Your task to perform on an android device: manage bookmarks in the chrome app Image 0: 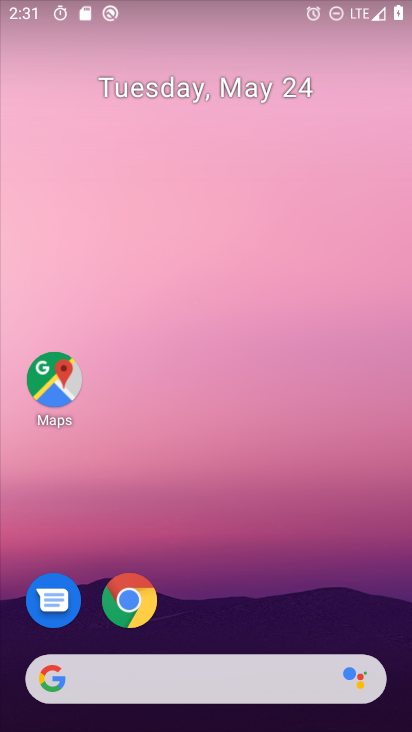
Step 0: click (137, 600)
Your task to perform on an android device: manage bookmarks in the chrome app Image 1: 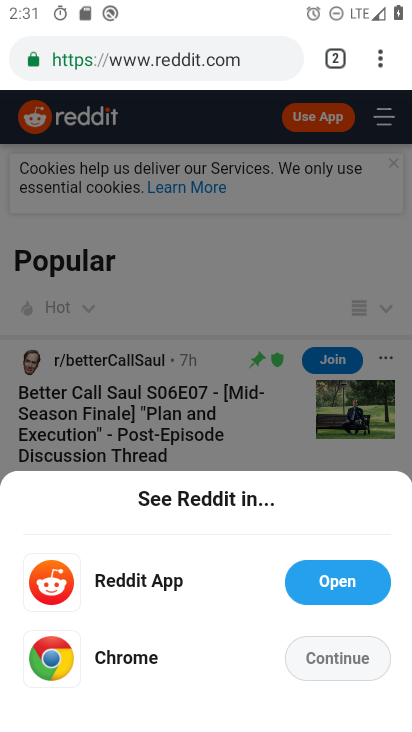
Step 1: click (393, 61)
Your task to perform on an android device: manage bookmarks in the chrome app Image 2: 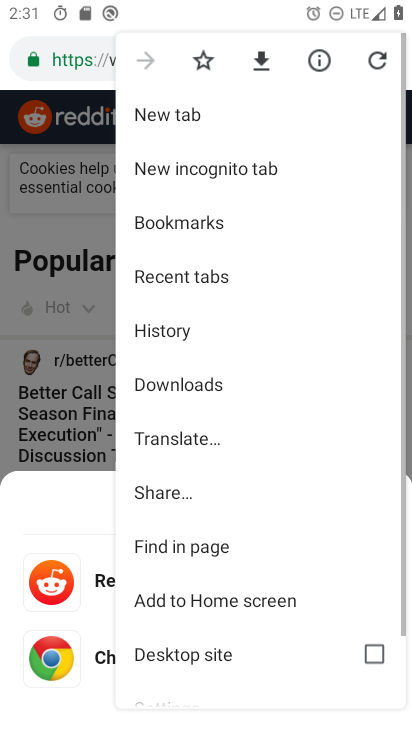
Step 2: drag from (227, 454) to (258, 223)
Your task to perform on an android device: manage bookmarks in the chrome app Image 3: 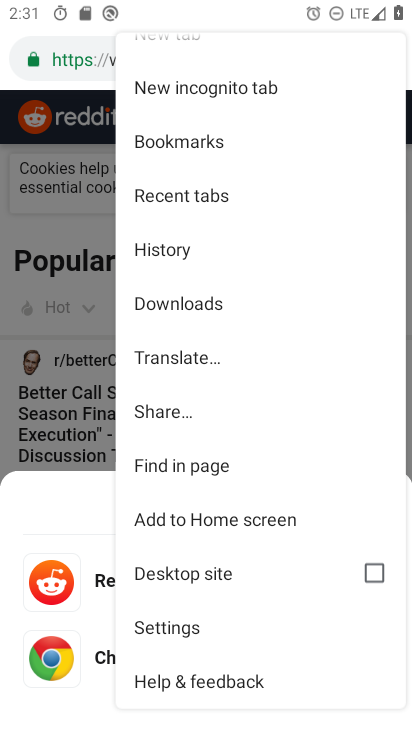
Step 3: click (239, 153)
Your task to perform on an android device: manage bookmarks in the chrome app Image 4: 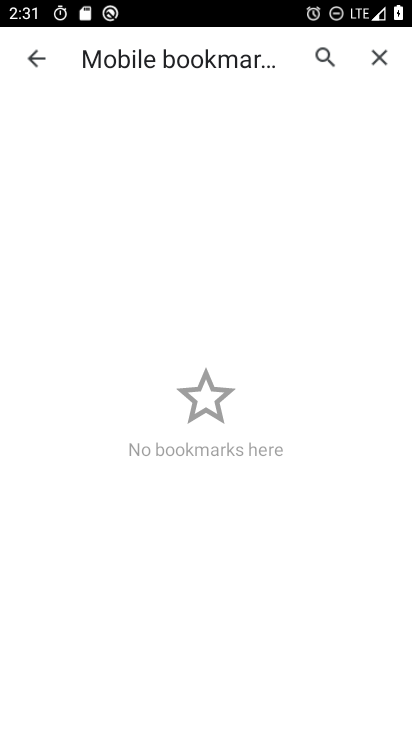
Step 4: task complete